Your task to perform on an android device: Do I have any events this weekend? Image 0: 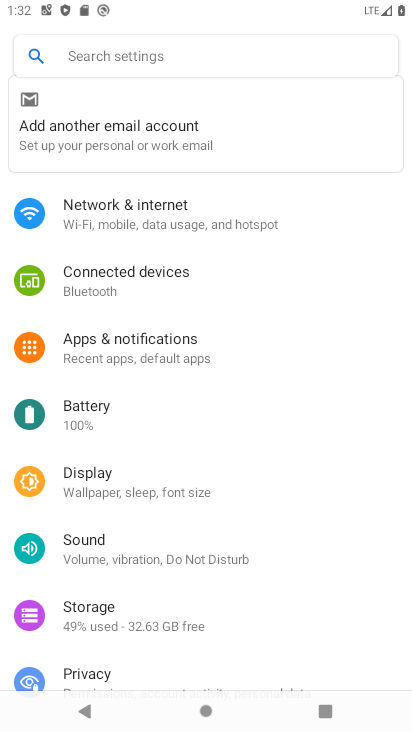
Step 0: press home button
Your task to perform on an android device: Do I have any events this weekend? Image 1: 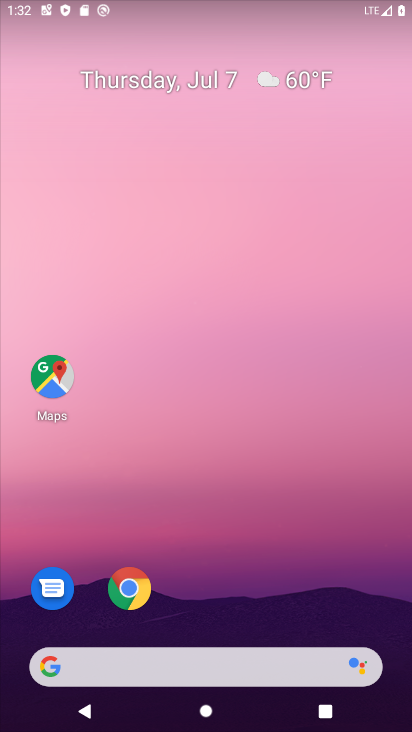
Step 1: drag from (214, 632) to (203, 322)
Your task to perform on an android device: Do I have any events this weekend? Image 2: 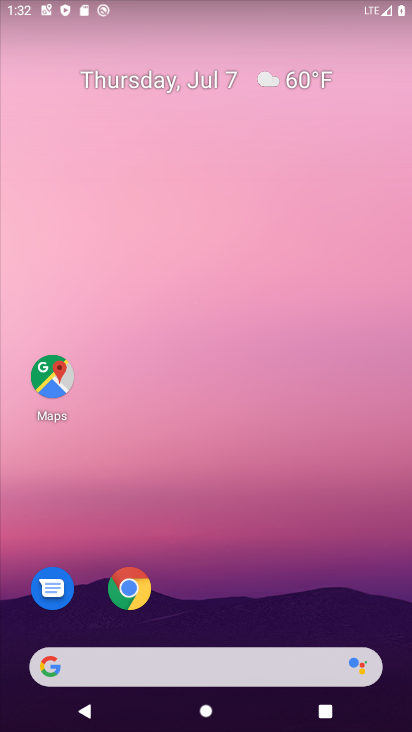
Step 2: drag from (204, 616) to (218, 227)
Your task to perform on an android device: Do I have any events this weekend? Image 3: 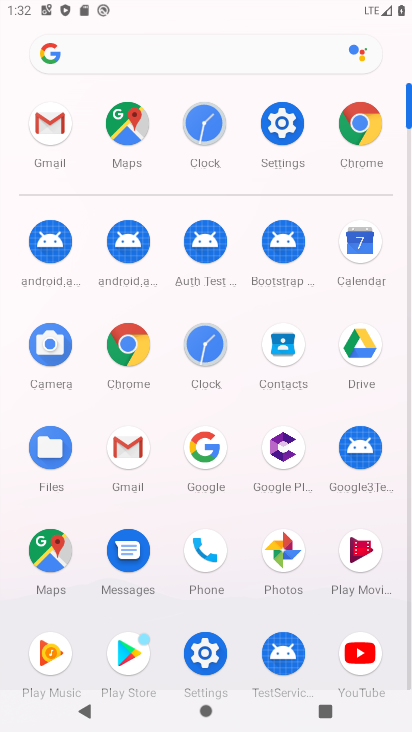
Step 3: click (367, 234)
Your task to perform on an android device: Do I have any events this weekend? Image 4: 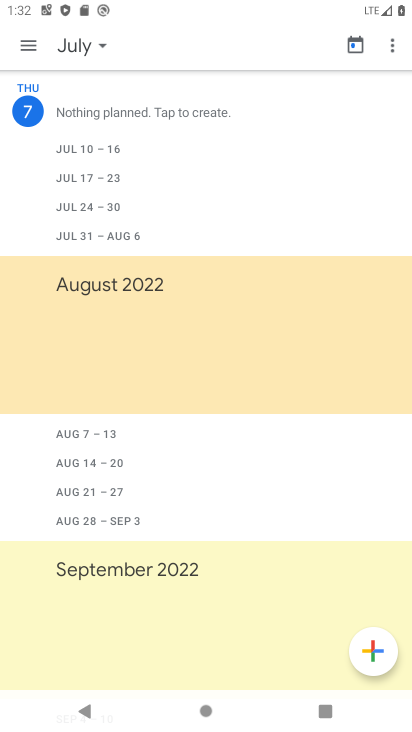
Step 4: click (38, 39)
Your task to perform on an android device: Do I have any events this weekend? Image 5: 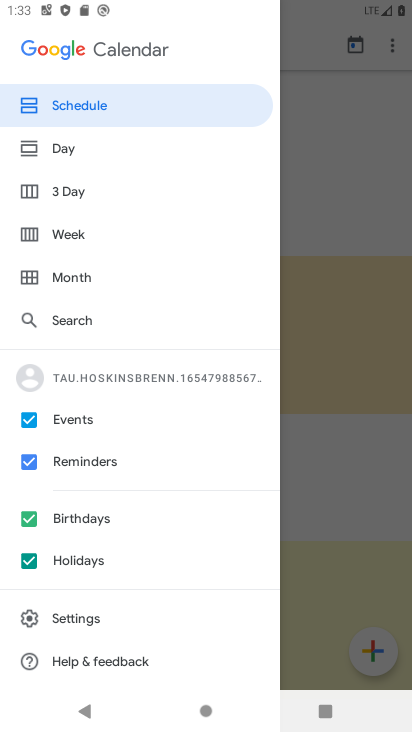
Step 5: click (93, 272)
Your task to perform on an android device: Do I have any events this weekend? Image 6: 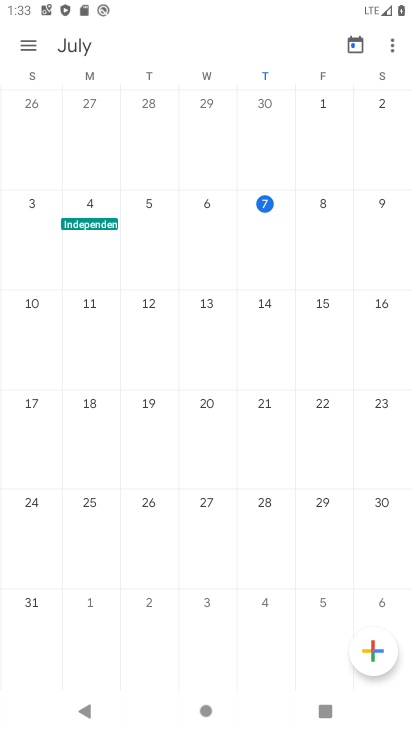
Step 6: task complete